Your task to perform on an android device: Go to CNN.com Image 0: 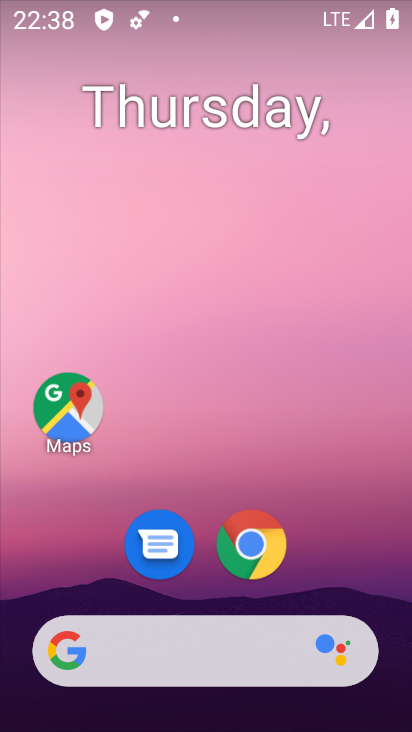
Step 0: click (234, 534)
Your task to perform on an android device: Go to CNN.com Image 1: 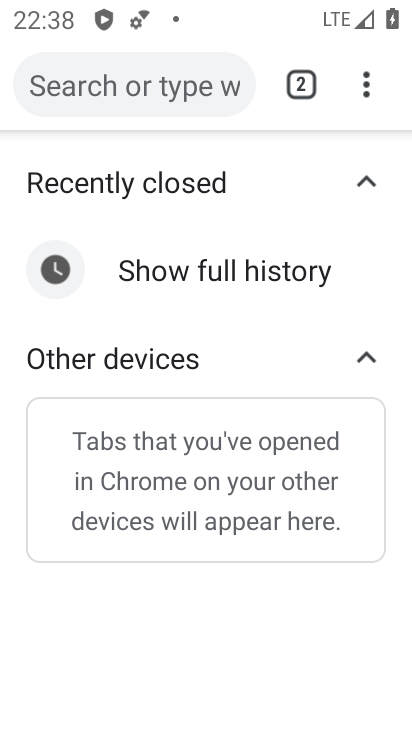
Step 1: click (235, 86)
Your task to perform on an android device: Go to CNN.com Image 2: 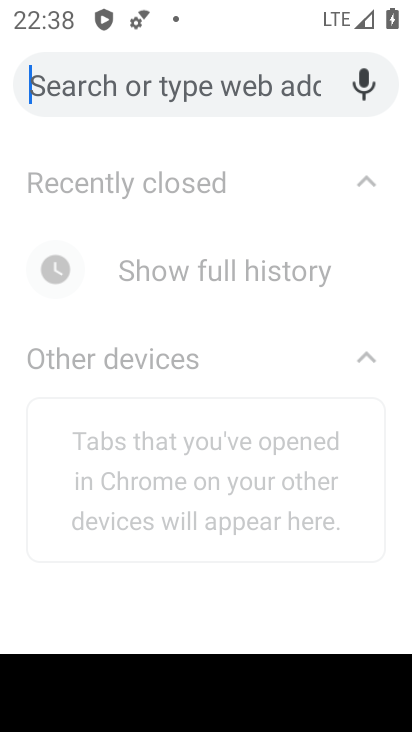
Step 2: type "cnn.com"
Your task to perform on an android device: Go to CNN.com Image 3: 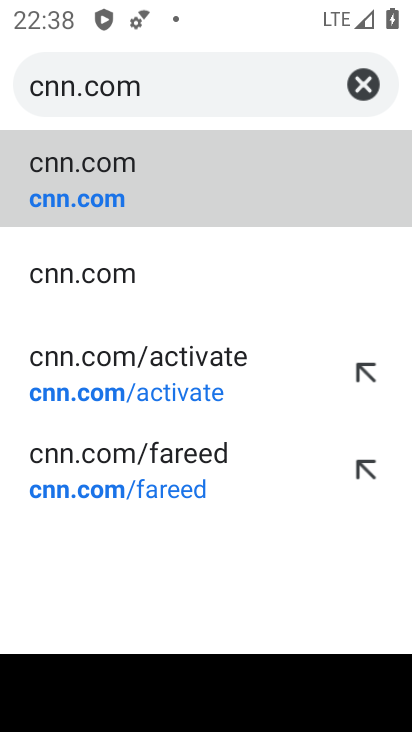
Step 3: click (82, 190)
Your task to perform on an android device: Go to CNN.com Image 4: 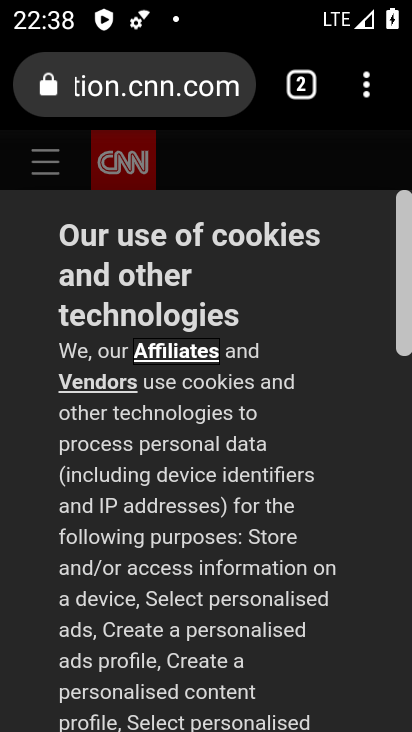
Step 4: task complete